Your task to perform on an android device: find photos in the google photos app Image 0: 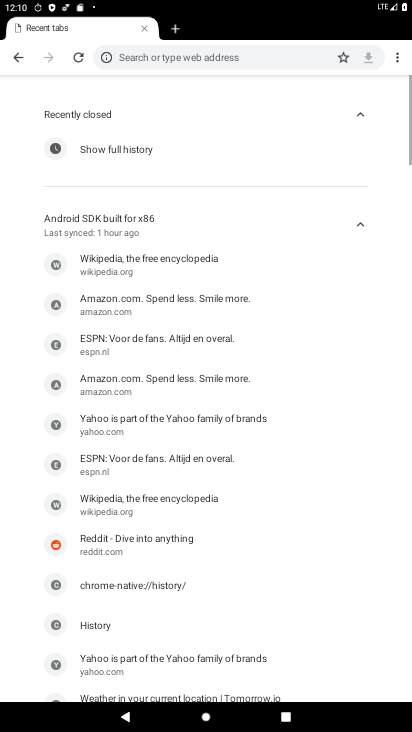
Step 0: press home button
Your task to perform on an android device: find photos in the google photos app Image 1: 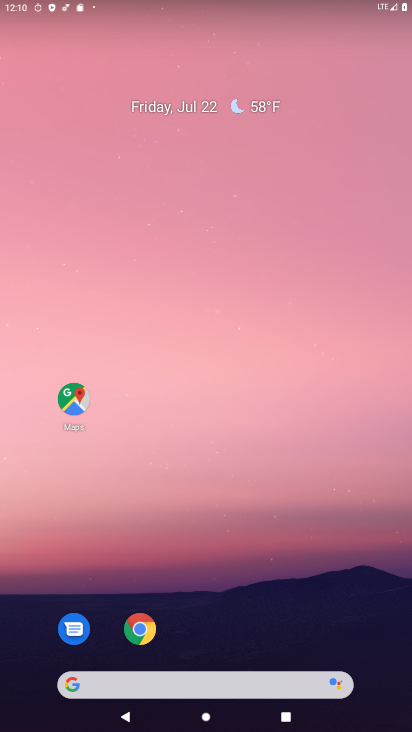
Step 1: drag from (342, 585) to (336, 155)
Your task to perform on an android device: find photos in the google photos app Image 2: 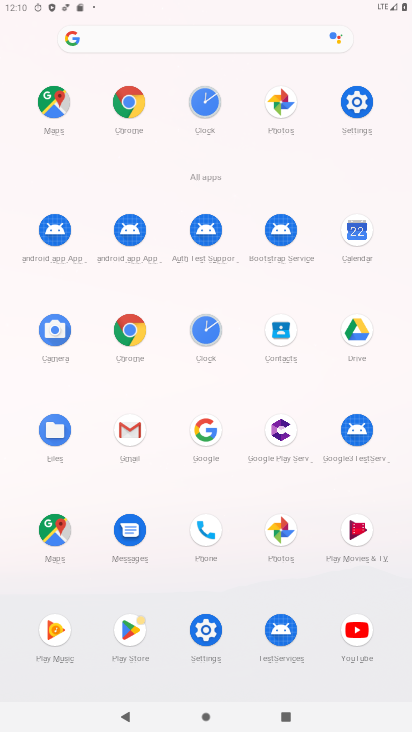
Step 2: click (281, 527)
Your task to perform on an android device: find photos in the google photos app Image 3: 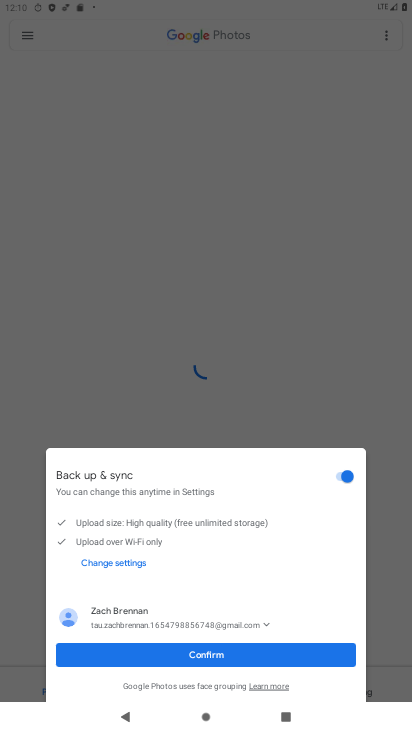
Step 3: click (274, 650)
Your task to perform on an android device: find photos in the google photos app Image 4: 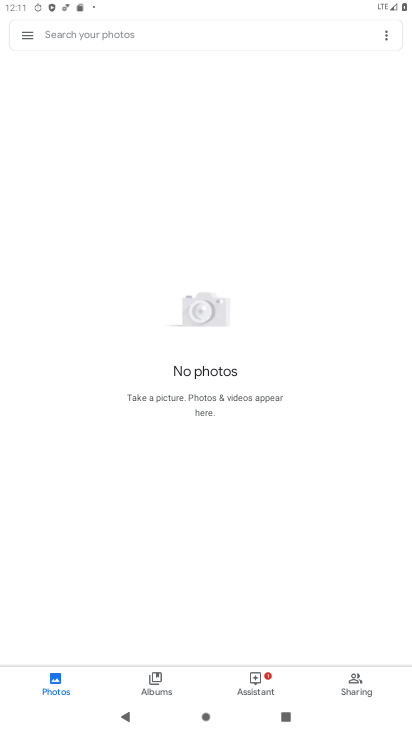
Step 4: task complete